Your task to perform on an android device: remove spam from my inbox in the gmail app Image 0: 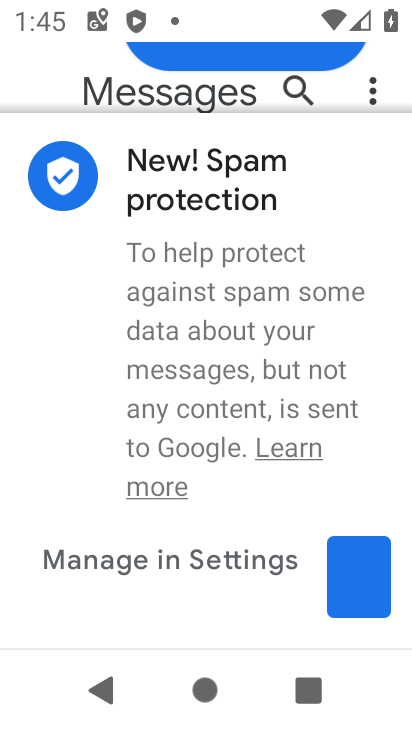
Step 0: press home button
Your task to perform on an android device: remove spam from my inbox in the gmail app Image 1: 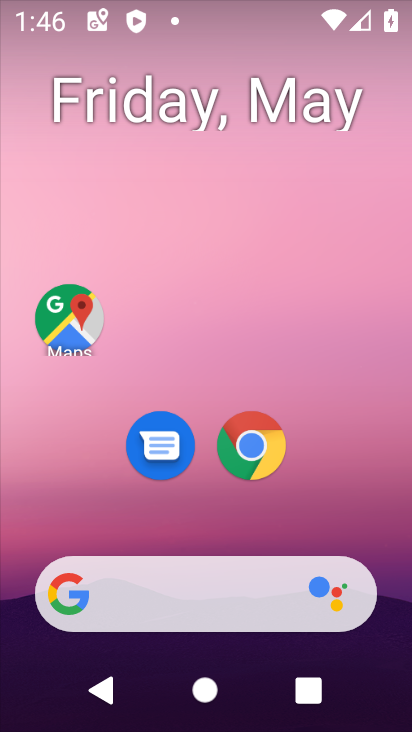
Step 1: drag from (401, 635) to (390, 186)
Your task to perform on an android device: remove spam from my inbox in the gmail app Image 2: 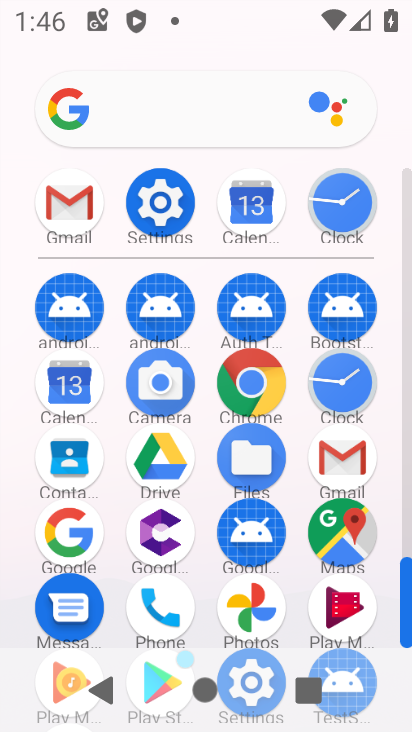
Step 2: click (341, 458)
Your task to perform on an android device: remove spam from my inbox in the gmail app Image 3: 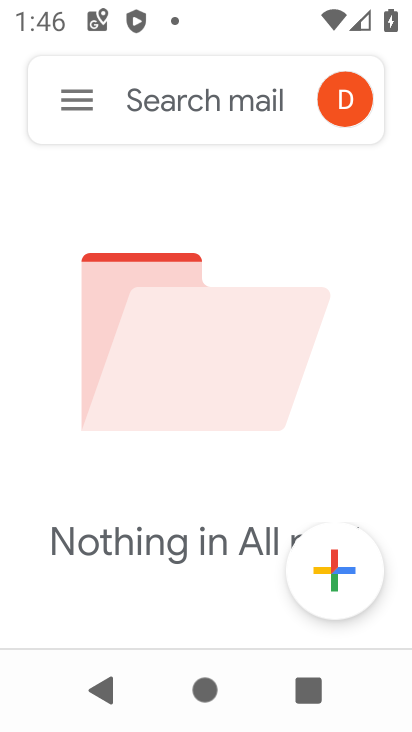
Step 3: click (76, 100)
Your task to perform on an android device: remove spam from my inbox in the gmail app Image 4: 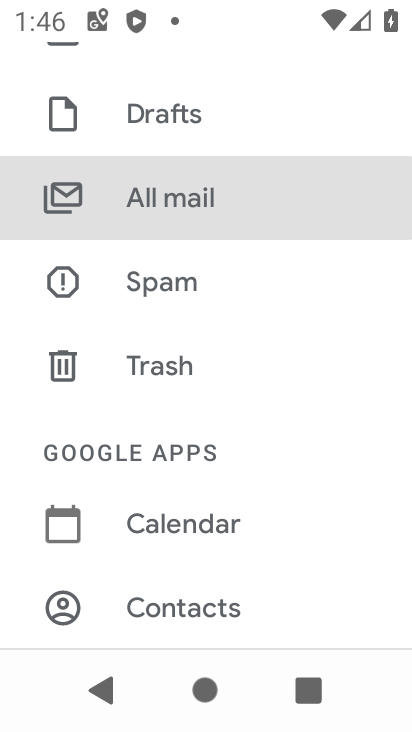
Step 4: click (160, 272)
Your task to perform on an android device: remove spam from my inbox in the gmail app Image 5: 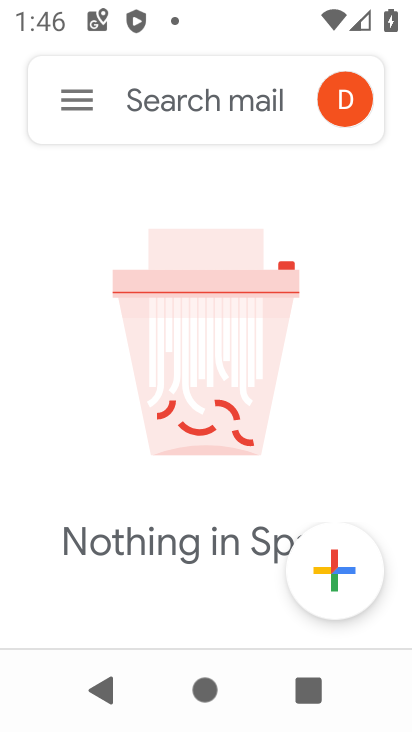
Step 5: task complete